Your task to perform on an android device: turn on translation in the chrome app Image 0: 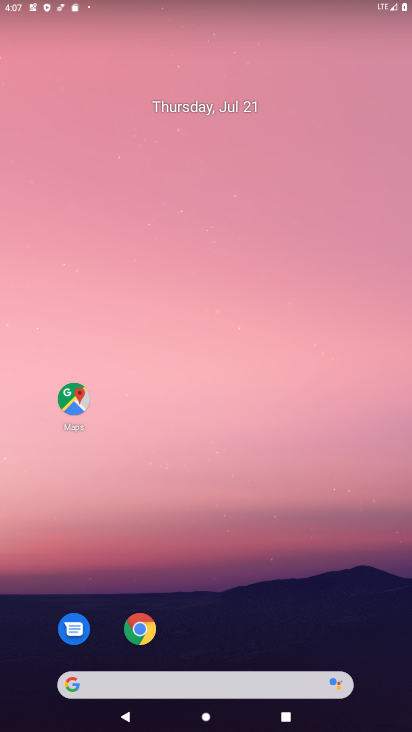
Step 0: drag from (342, 625) to (250, 225)
Your task to perform on an android device: turn on translation in the chrome app Image 1: 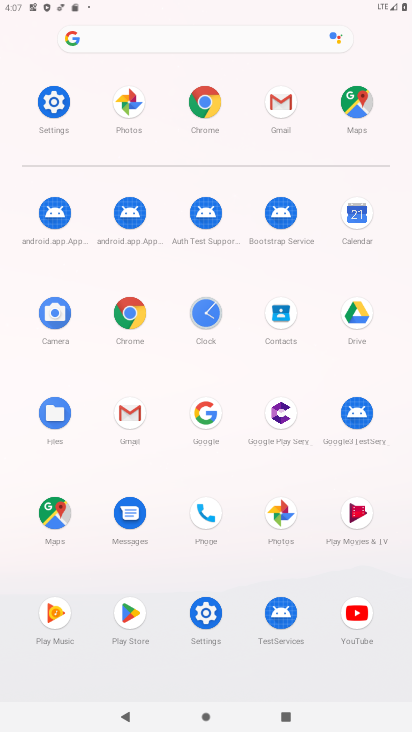
Step 1: click (216, 114)
Your task to perform on an android device: turn on translation in the chrome app Image 2: 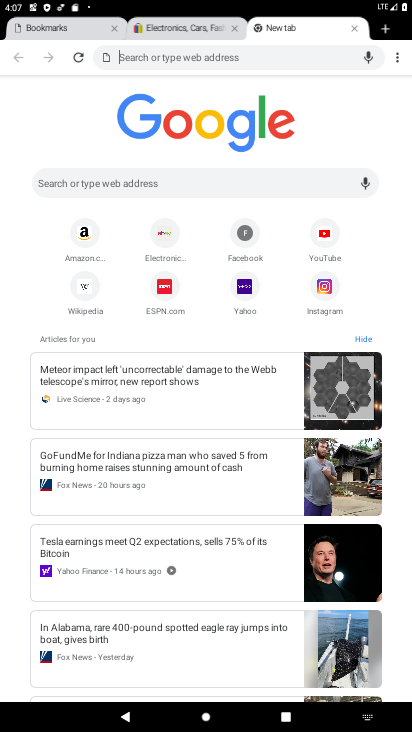
Step 2: click (392, 58)
Your task to perform on an android device: turn on translation in the chrome app Image 3: 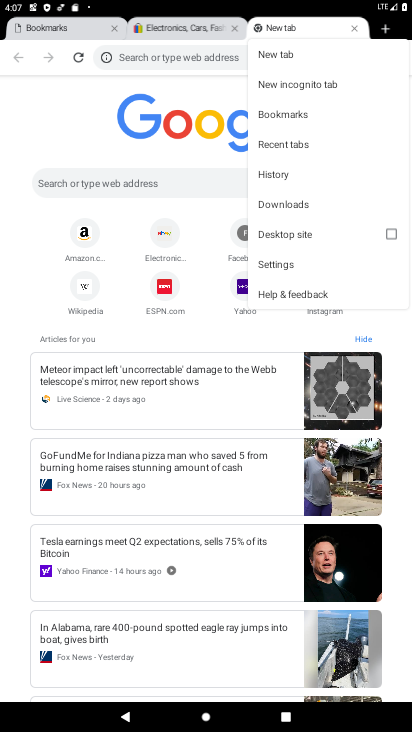
Step 3: click (300, 263)
Your task to perform on an android device: turn on translation in the chrome app Image 4: 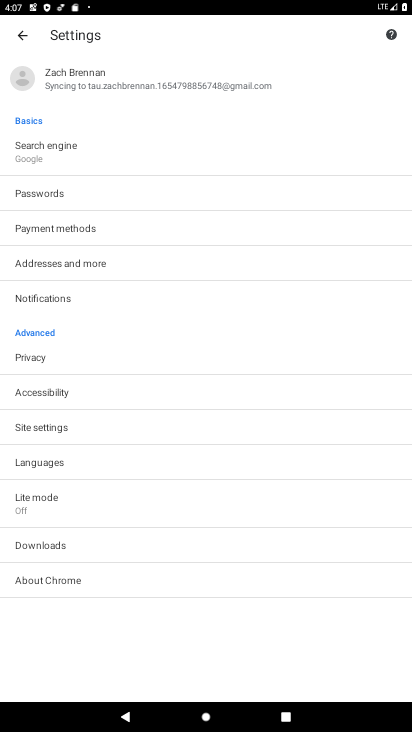
Step 4: click (66, 465)
Your task to perform on an android device: turn on translation in the chrome app Image 5: 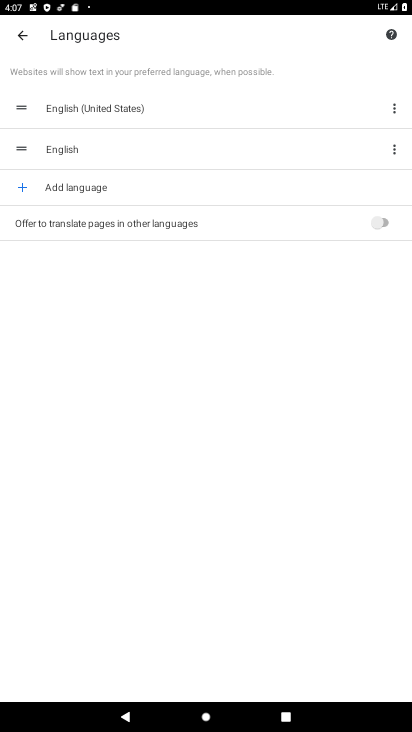
Step 5: click (381, 211)
Your task to perform on an android device: turn on translation in the chrome app Image 6: 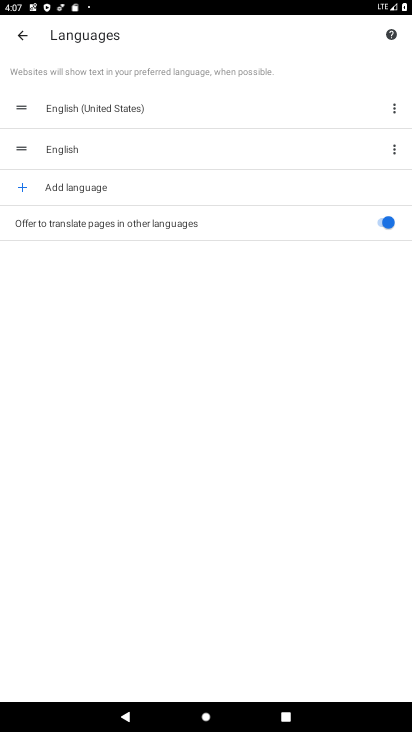
Step 6: task complete